Your task to perform on an android device: turn on javascript in the chrome app Image 0: 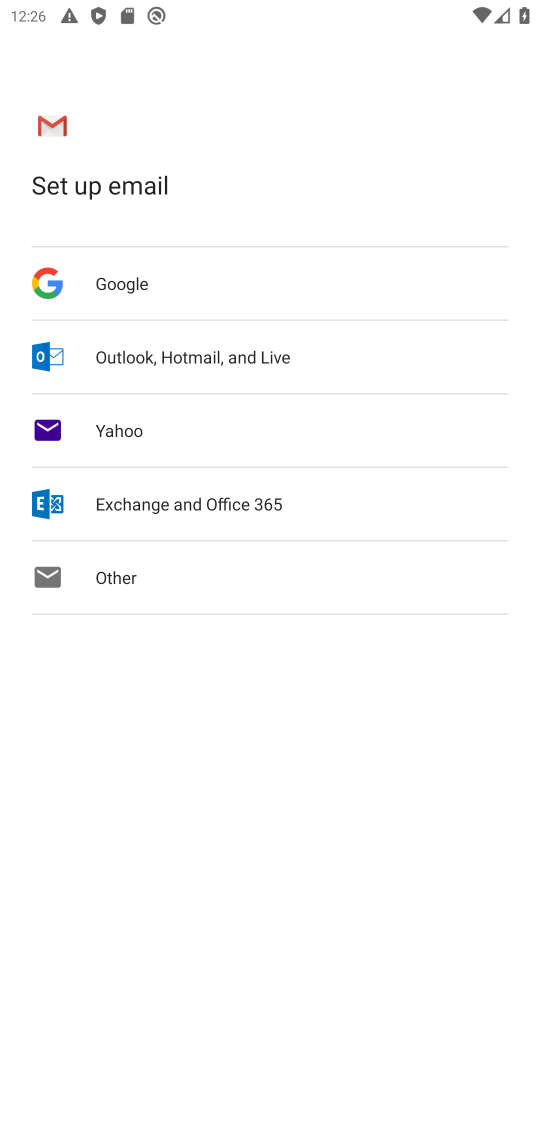
Step 0: press home button
Your task to perform on an android device: turn on javascript in the chrome app Image 1: 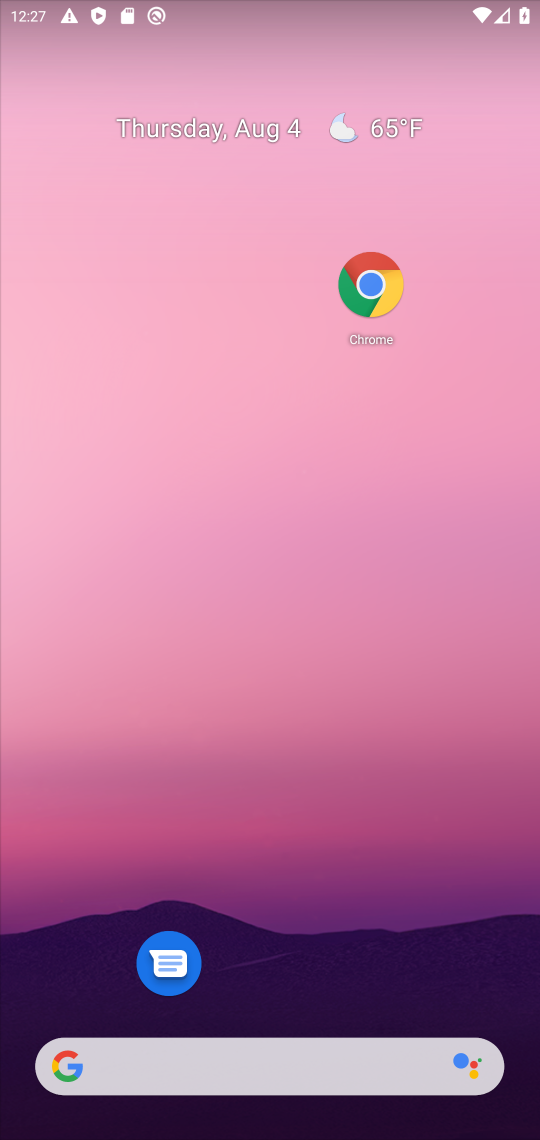
Step 1: click (389, 286)
Your task to perform on an android device: turn on javascript in the chrome app Image 2: 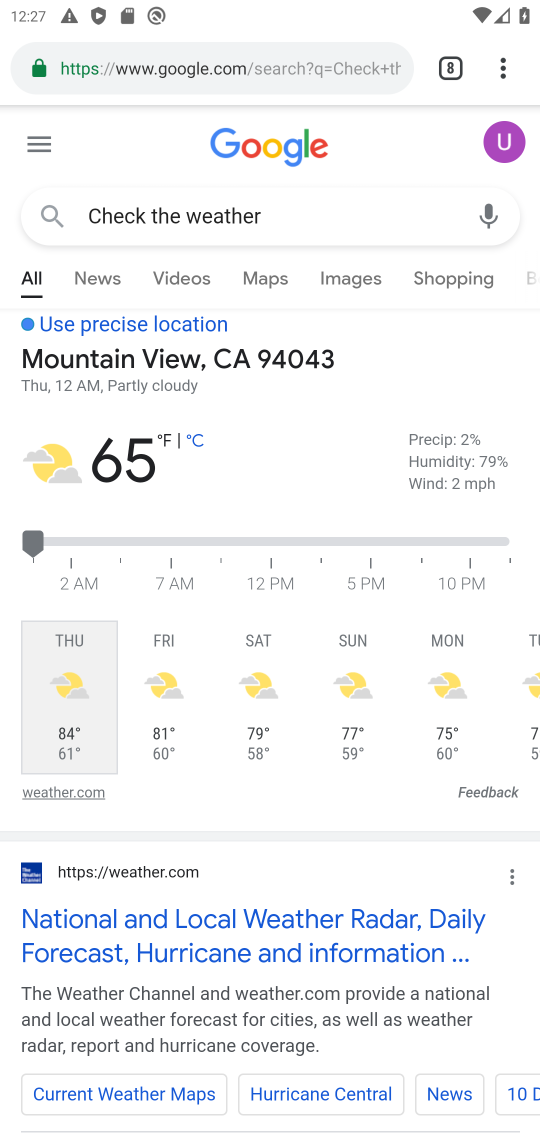
Step 2: click (520, 68)
Your task to perform on an android device: turn on javascript in the chrome app Image 3: 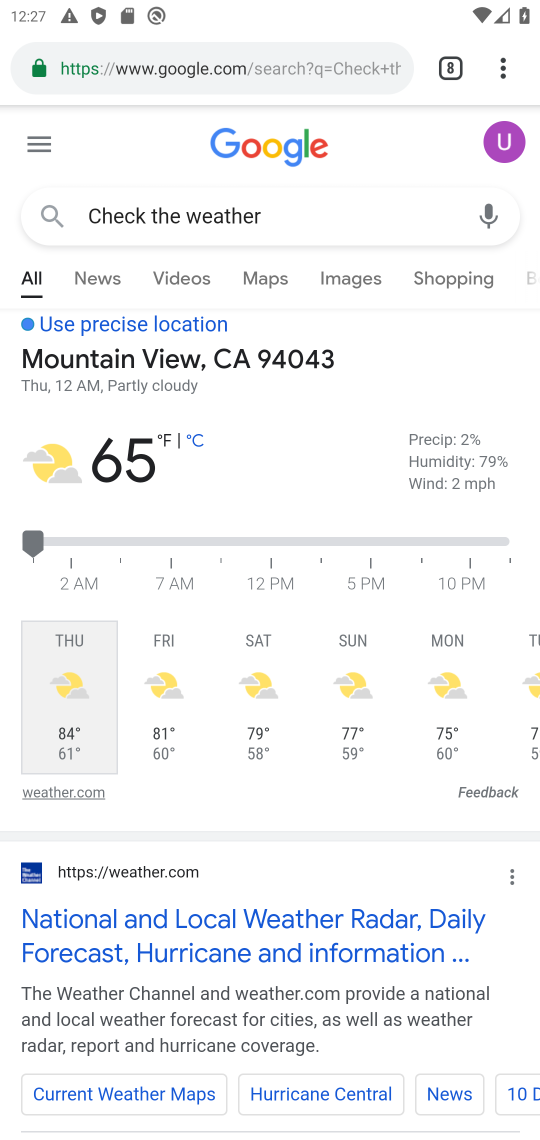
Step 3: click (503, 71)
Your task to perform on an android device: turn on javascript in the chrome app Image 4: 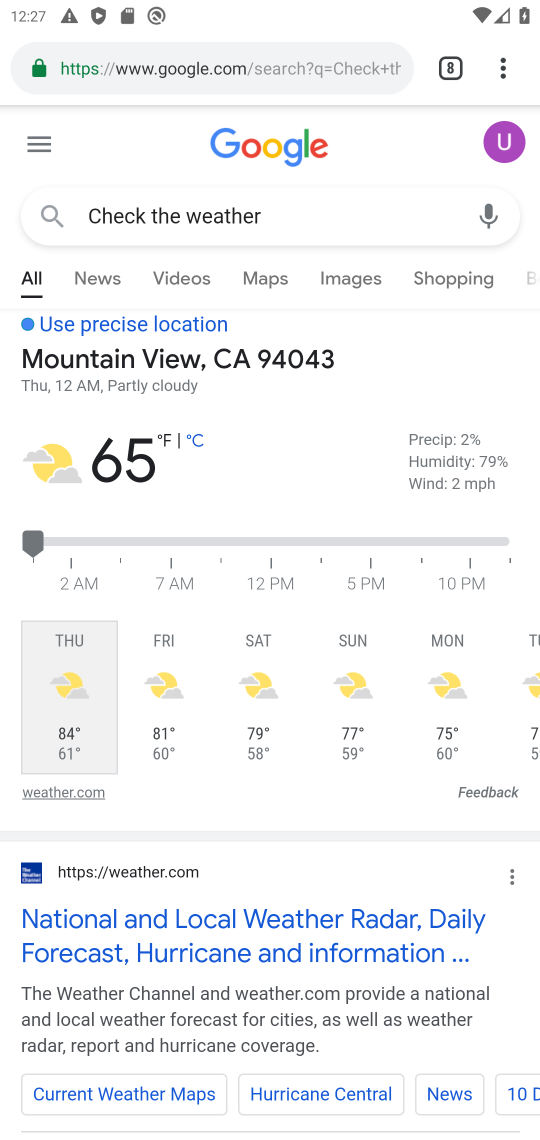
Step 4: click (508, 68)
Your task to perform on an android device: turn on javascript in the chrome app Image 5: 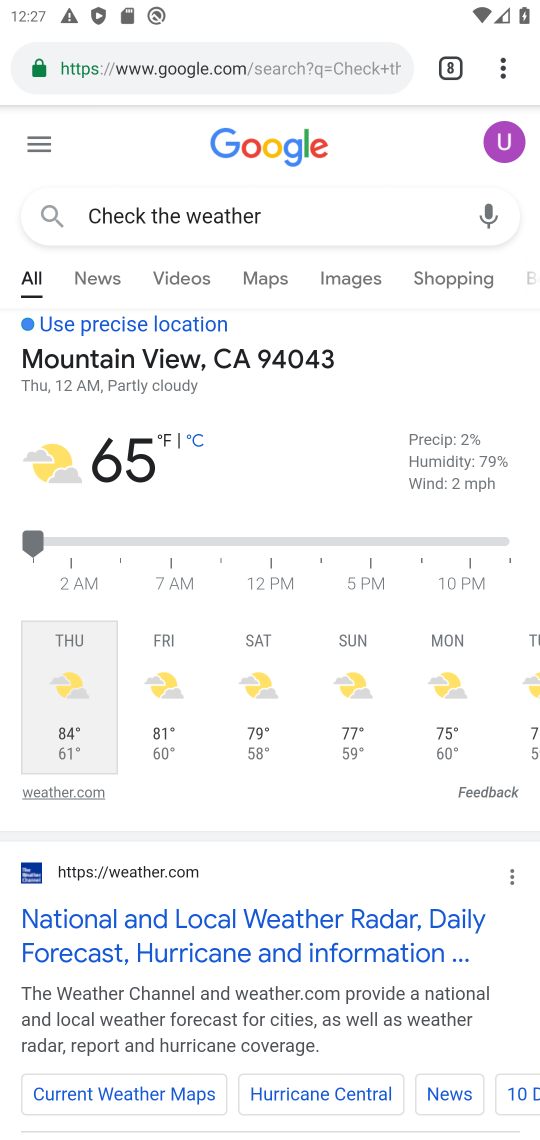
Step 5: click (508, 68)
Your task to perform on an android device: turn on javascript in the chrome app Image 6: 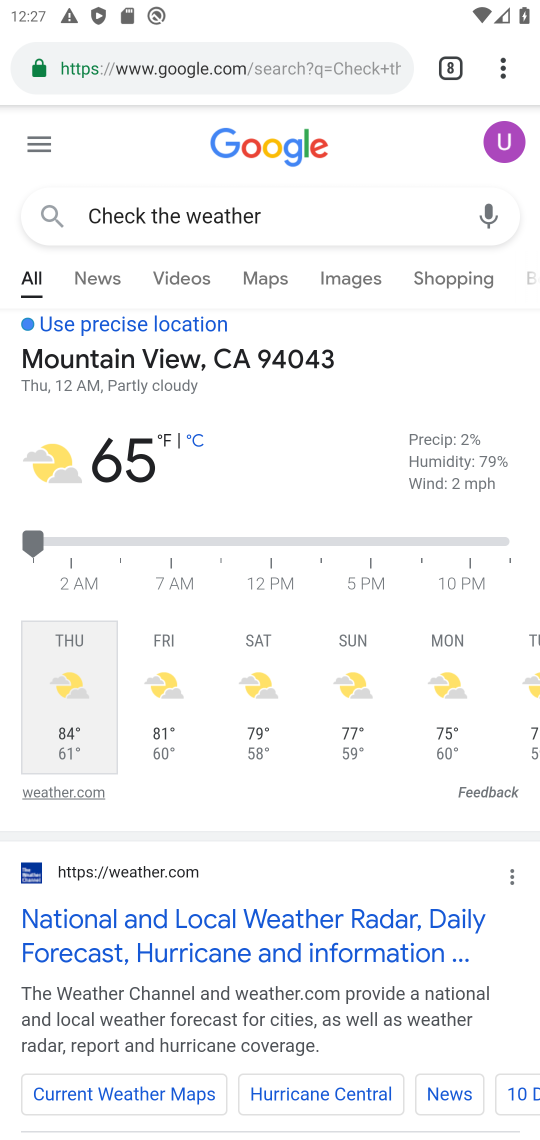
Step 6: click (508, 68)
Your task to perform on an android device: turn on javascript in the chrome app Image 7: 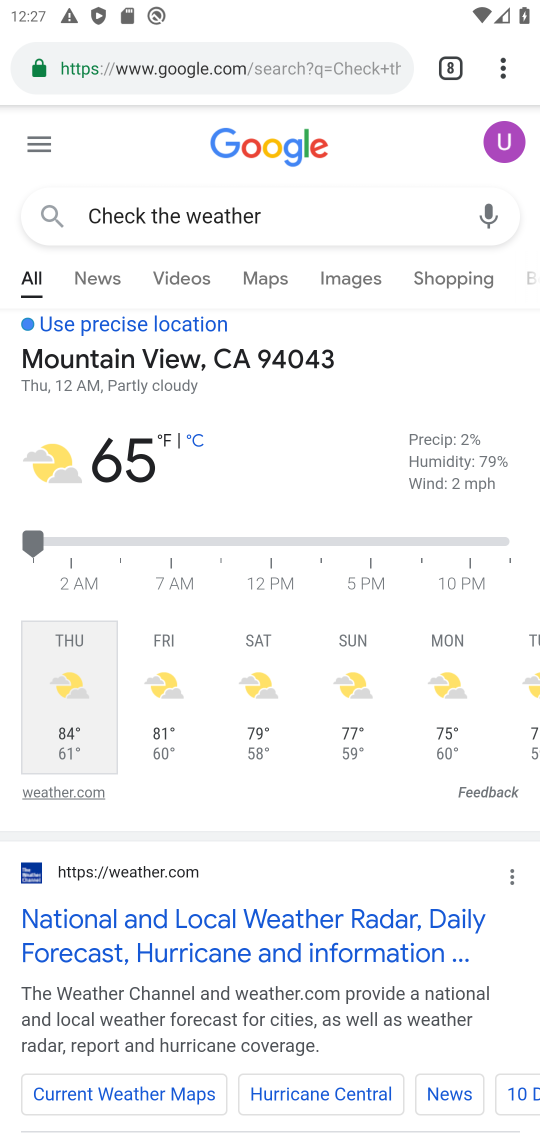
Step 7: click (491, 63)
Your task to perform on an android device: turn on javascript in the chrome app Image 8: 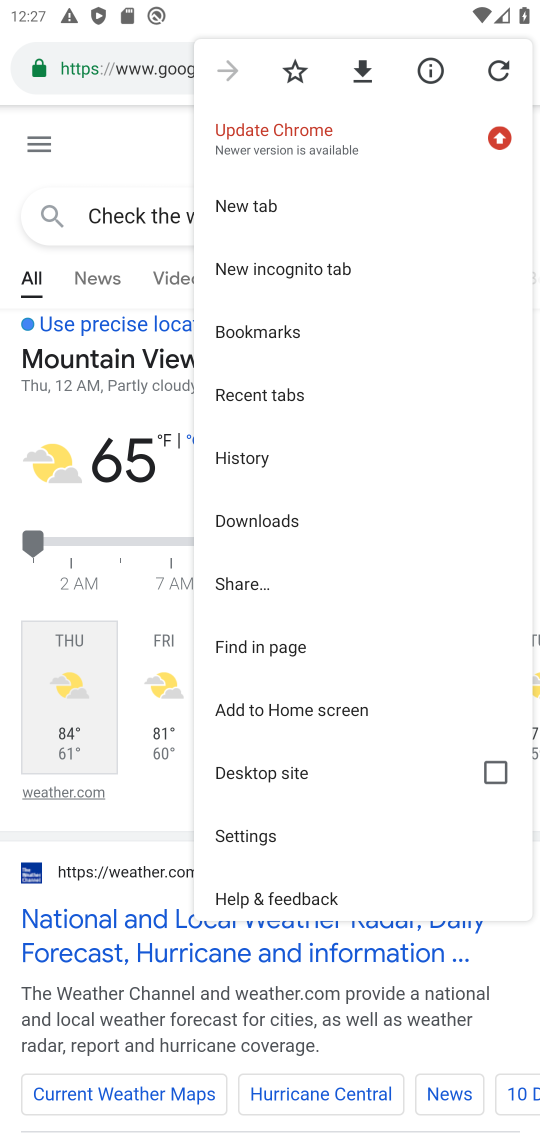
Step 8: click (256, 838)
Your task to perform on an android device: turn on javascript in the chrome app Image 9: 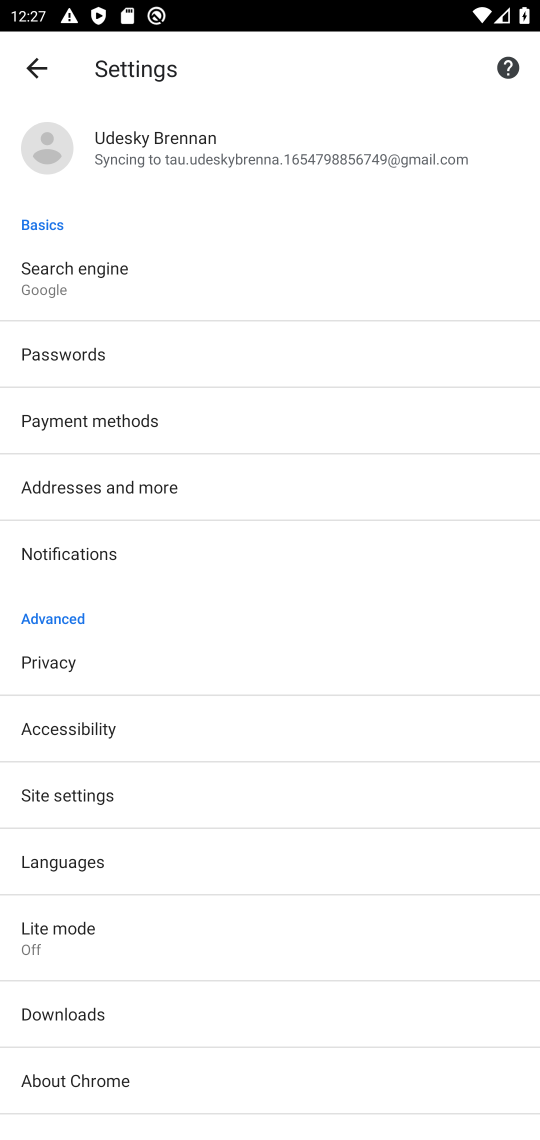
Step 9: click (119, 792)
Your task to perform on an android device: turn on javascript in the chrome app Image 10: 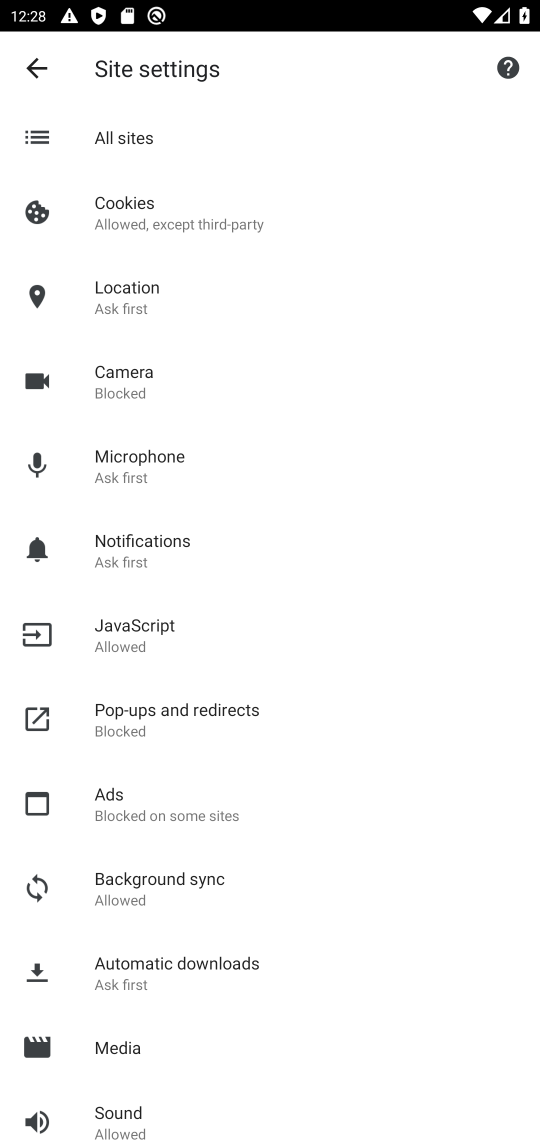
Step 10: click (169, 640)
Your task to perform on an android device: turn on javascript in the chrome app Image 11: 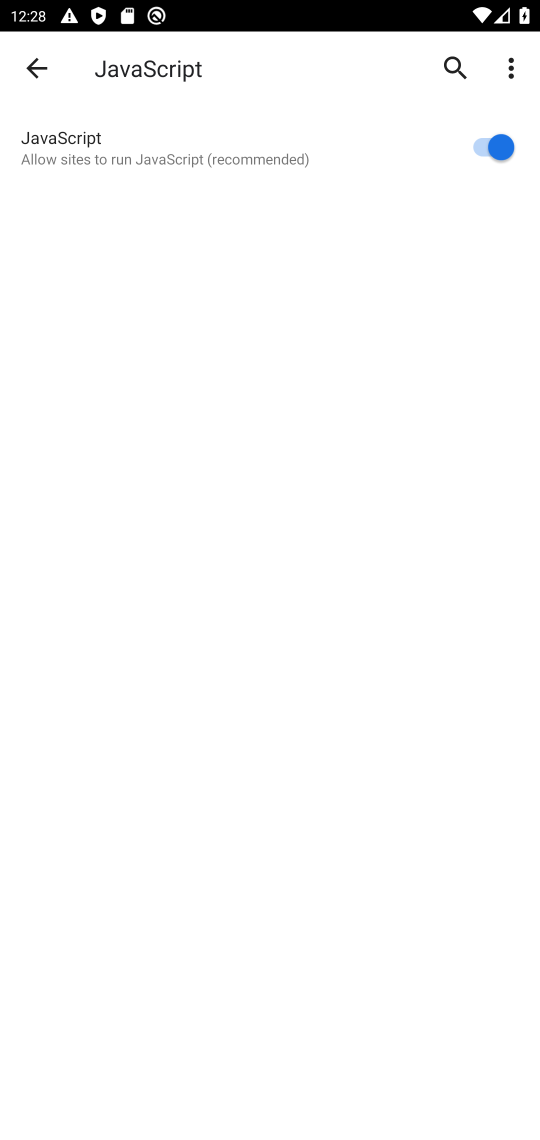
Step 11: task complete